Your task to perform on an android device: toggle sleep mode Image 0: 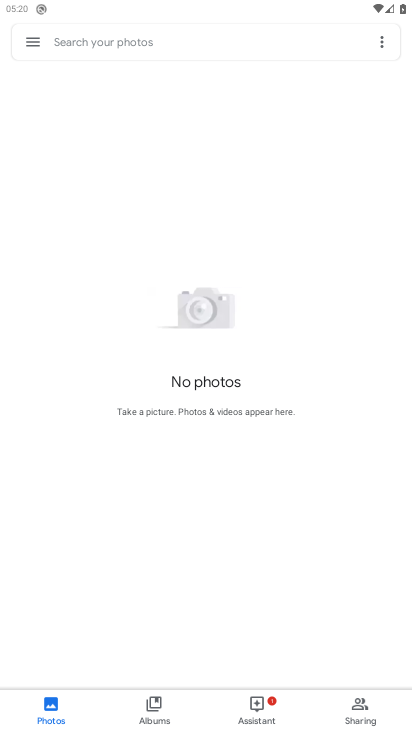
Step 0: press home button
Your task to perform on an android device: toggle sleep mode Image 1: 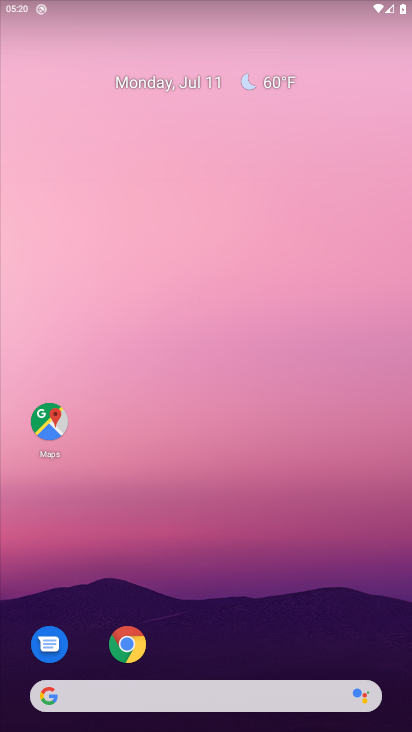
Step 1: drag from (181, 669) to (181, 196)
Your task to perform on an android device: toggle sleep mode Image 2: 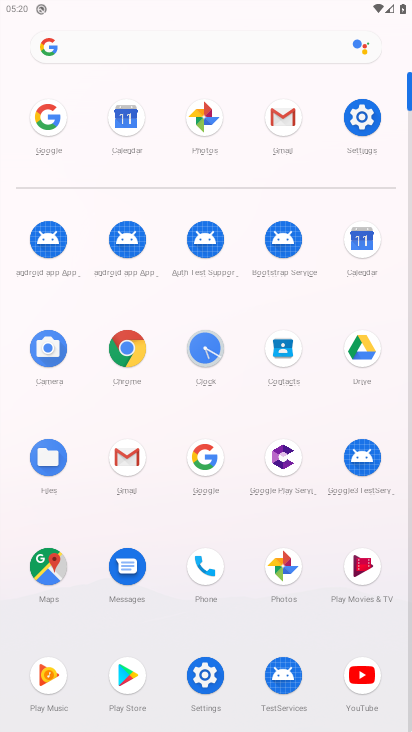
Step 2: click (357, 124)
Your task to perform on an android device: toggle sleep mode Image 3: 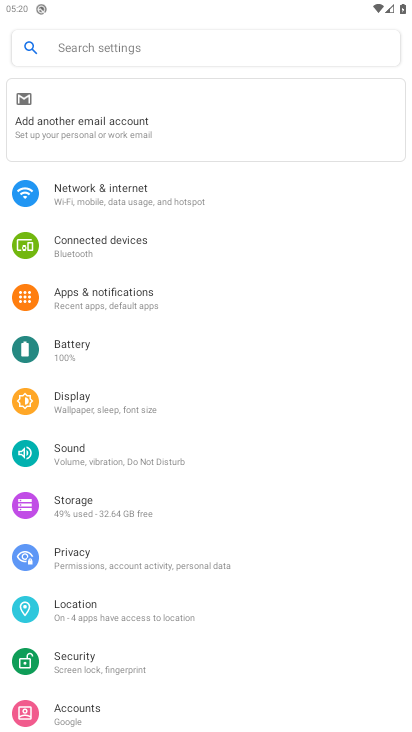
Step 3: click (81, 407)
Your task to perform on an android device: toggle sleep mode Image 4: 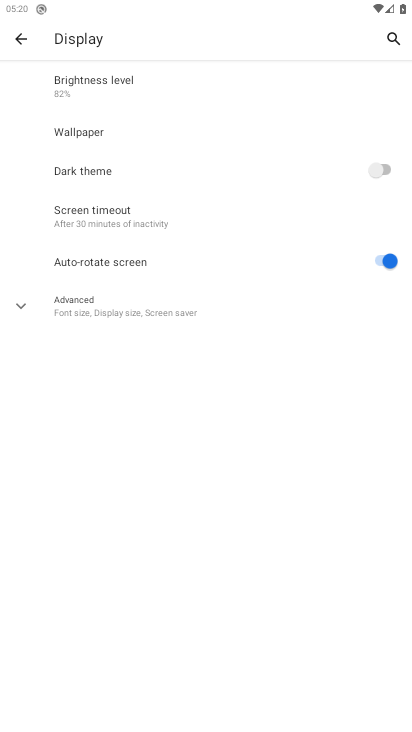
Step 4: click (101, 217)
Your task to perform on an android device: toggle sleep mode Image 5: 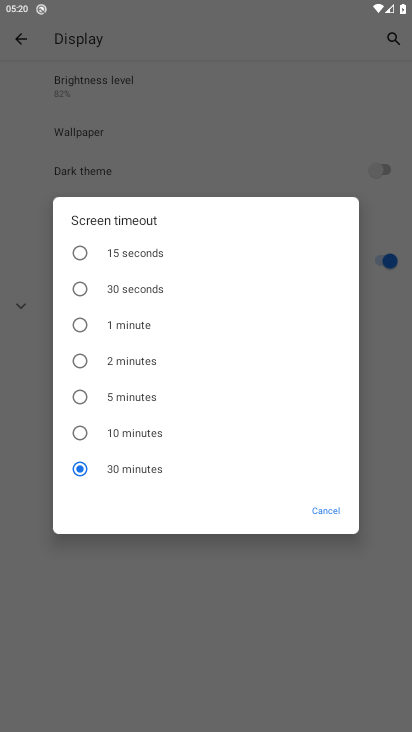
Step 5: click (122, 253)
Your task to perform on an android device: toggle sleep mode Image 6: 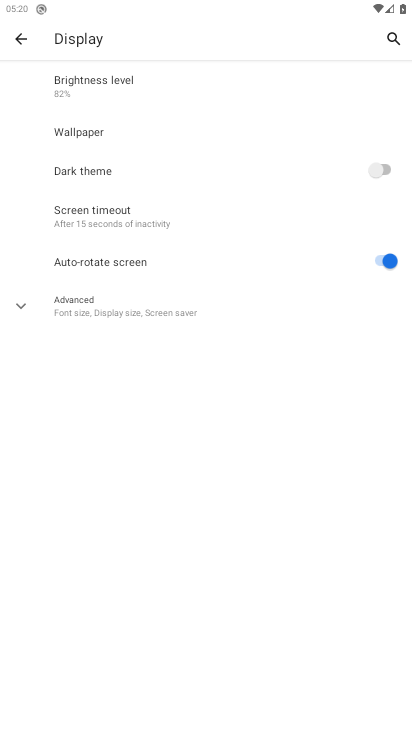
Step 6: task complete